Your task to perform on an android device: open chrome privacy settings Image 0: 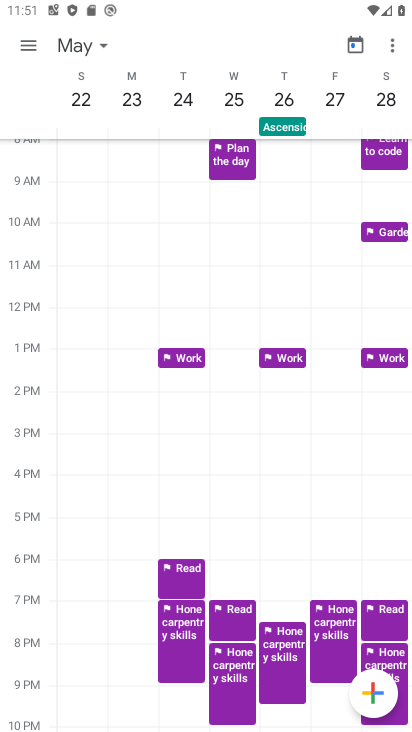
Step 0: press home button
Your task to perform on an android device: open chrome privacy settings Image 1: 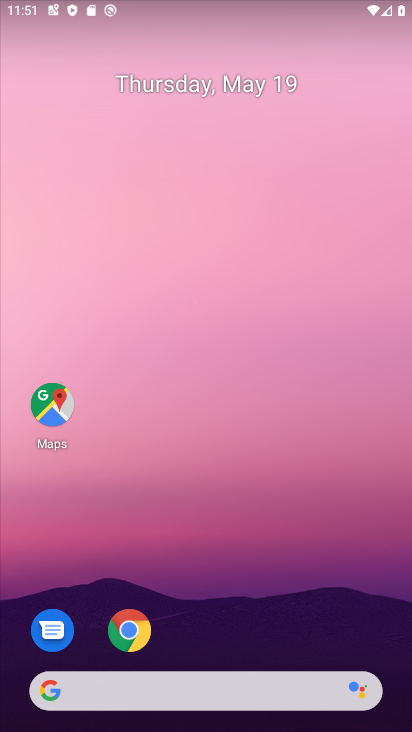
Step 1: click (131, 629)
Your task to perform on an android device: open chrome privacy settings Image 2: 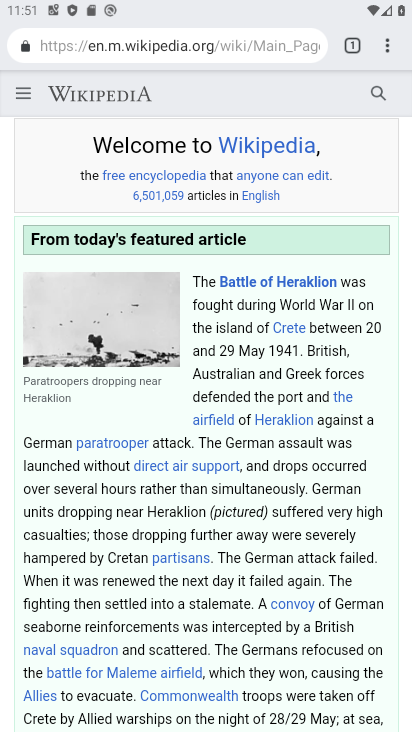
Step 2: click (388, 44)
Your task to perform on an android device: open chrome privacy settings Image 3: 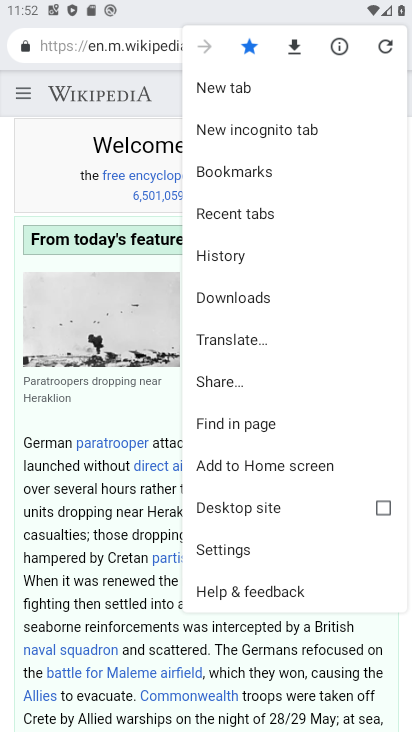
Step 3: click (230, 550)
Your task to perform on an android device: open chrome privacy settings Image 4: 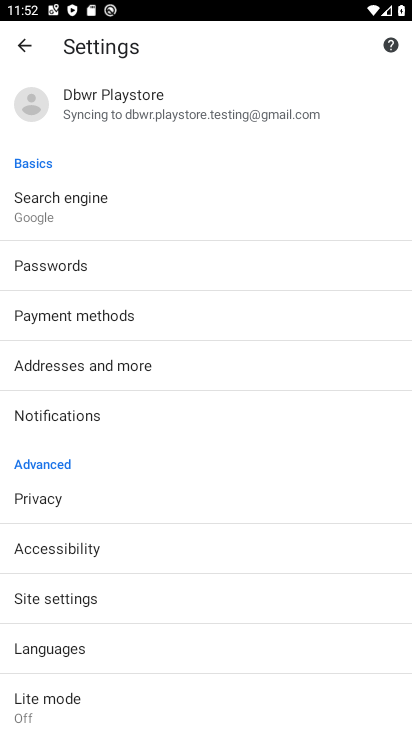
Step 4: click (49, 499)
Your task to perform on an android device: open chrome privacy settings Image 5: 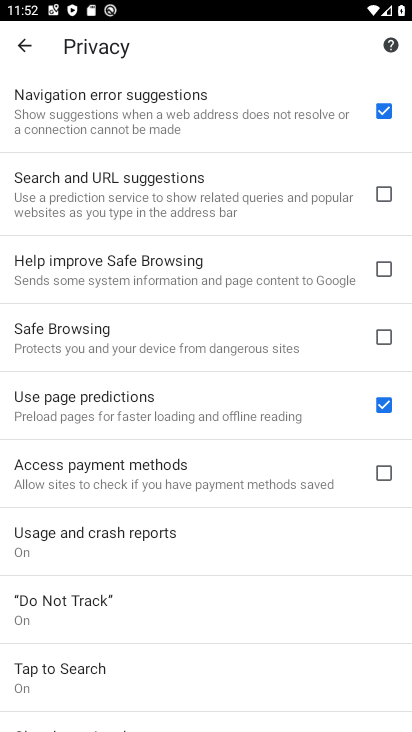
Step 5: task complete